Your task to perform on an android device: What's on my calendar today? Image 0: 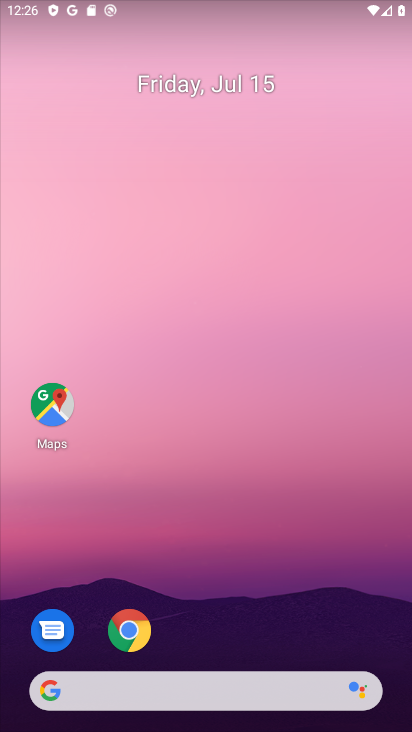
Step 0: drag from (278, 628) to (274, 103)
Your task to perform on an android device: What's on my calendar today? Image 1: 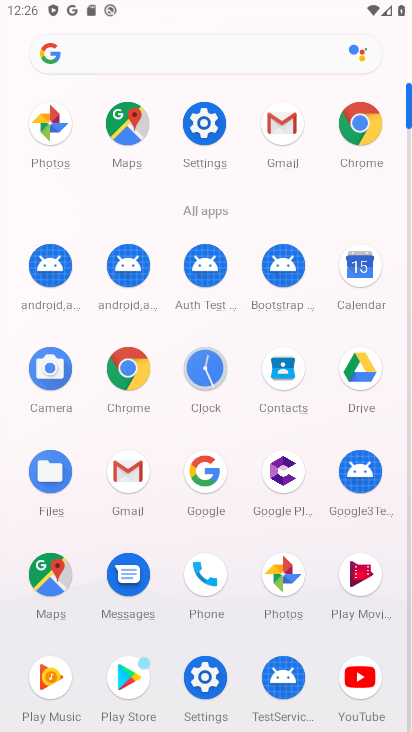
Step 1: click (353, 268)
Your task to perform on an android device: What's on my calendar today? Image 2: 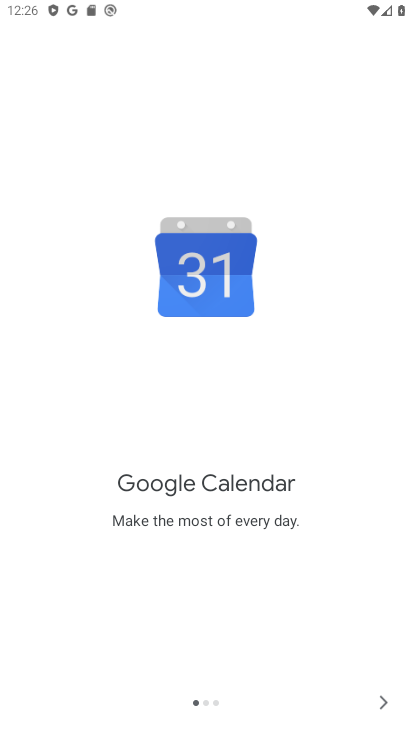
Step 2: click (390, 701)
Your task to perform on an android device: What's on my calendar today? Image 3: 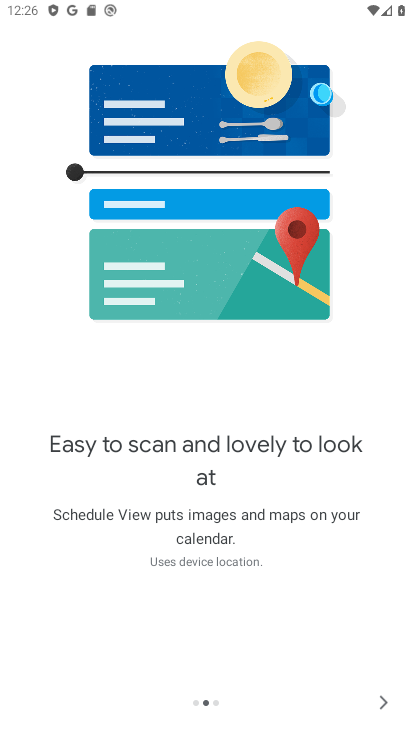
Step 3: click (390, 701)
Your task to perform on an android device: What's on my calendar today? Image 4: 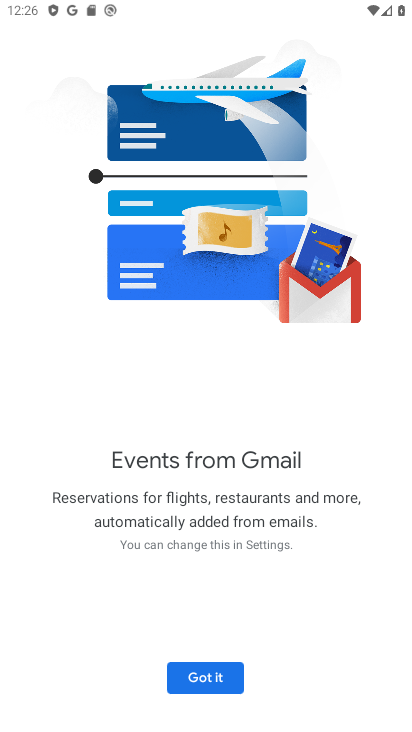
Step 4: click (215, 683)
Your task to perform on an android device: What's on my calendar today? Image 5: 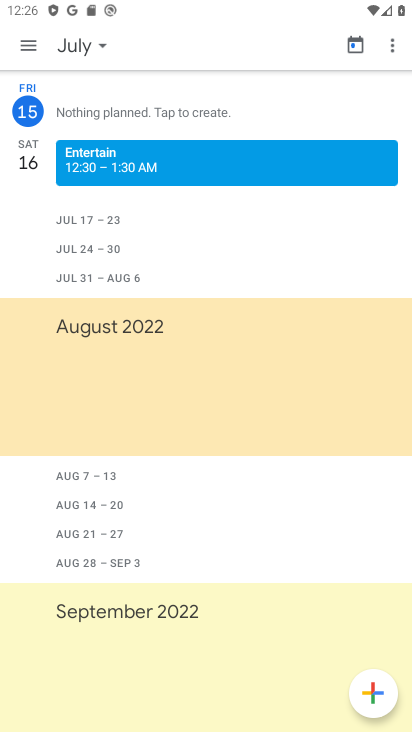
Step 5: click (25, 43)
Your task to perform on an android device: What's on my calendar today? Image 6: 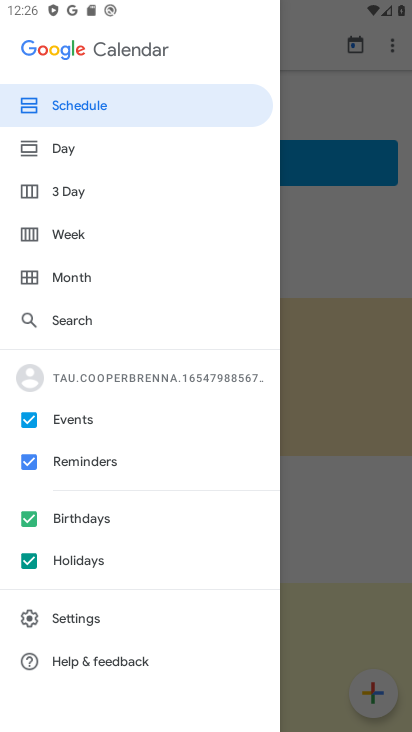
Step 6: click (108, 146)
Your task to perform on an android device: What's on my calendar today? Image 7: 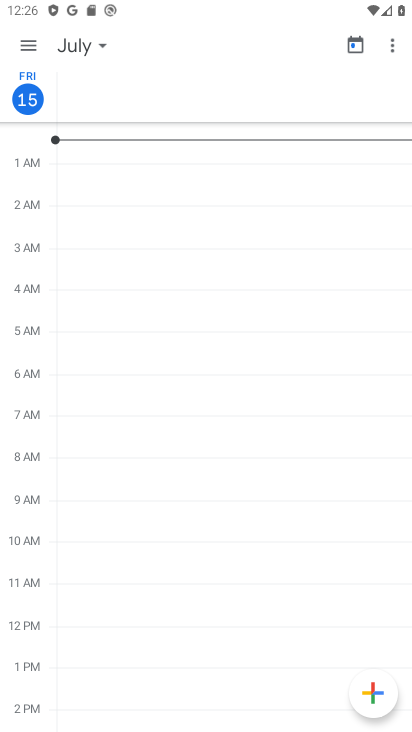
Step 7: click (87, 46)
Your task to perform on an android device: What's on my calendar today? Image 8: 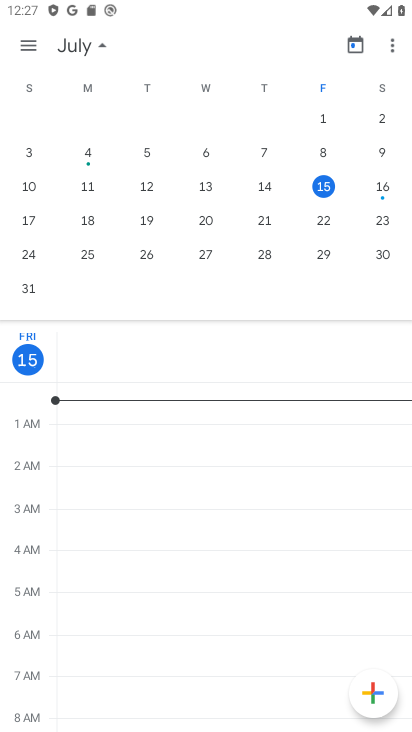
Step 8: task complete